Your task to perform on an android device: Open wifi settings Image 0: 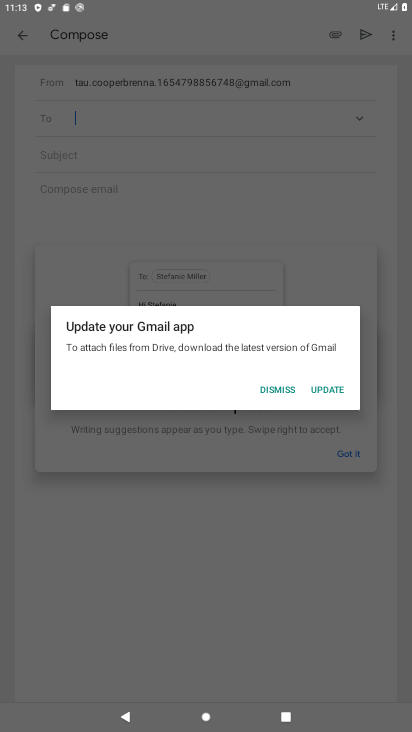
Step 0: press home button
Your task to perform on an android device: Open wifi settings Image 1: 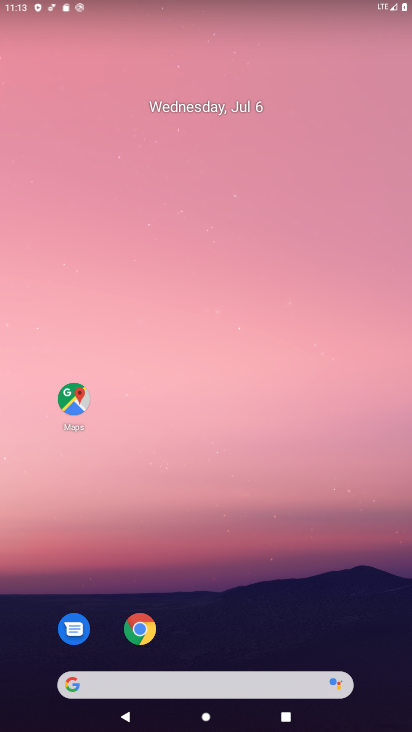
Step 1: drag from (228, 631) to (247, 235)
Your task to perform on an android device: Open wifi settings Image 2: 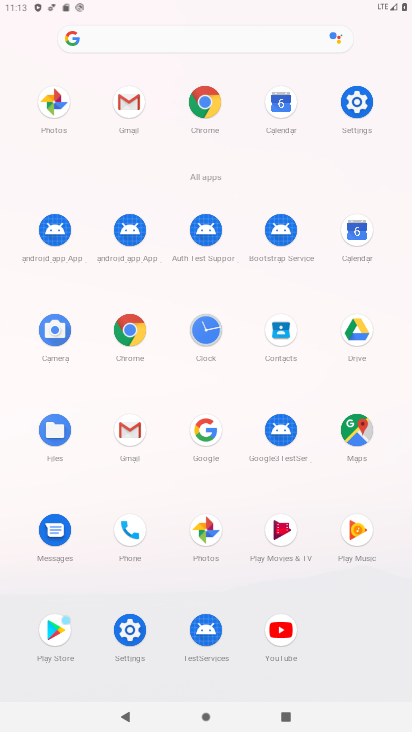
Step 2: click (348, 91)
Your task to perform on an android device: Open wifi settings Image 3: 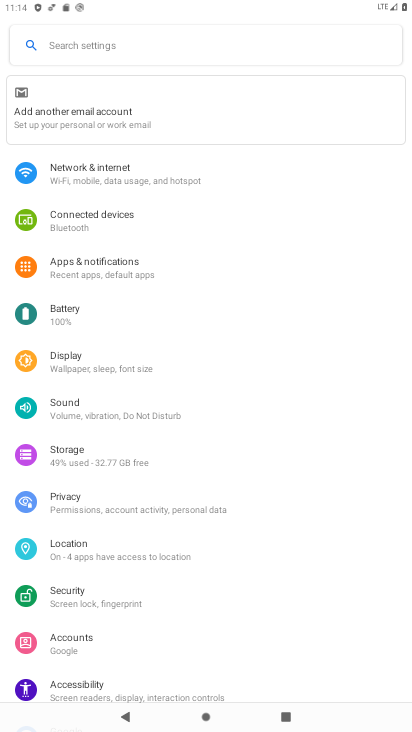
Step 3: click (125, 180)
Your task to perform on an android device: Open wifi settings Image 4: 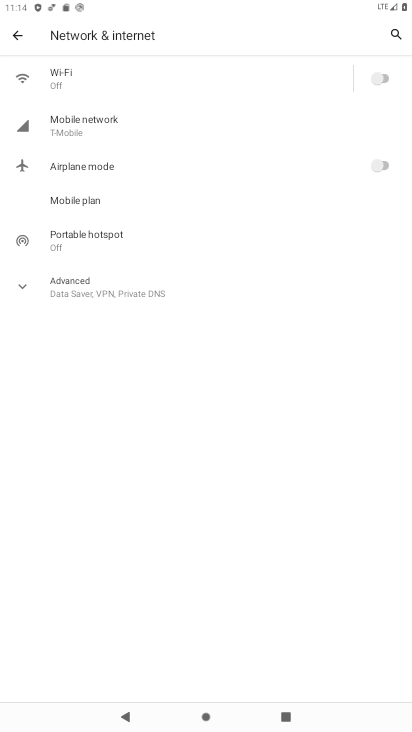
Step 4: click (100, 86)
Your task to perform on an android device: Open wifi settings Image 5: 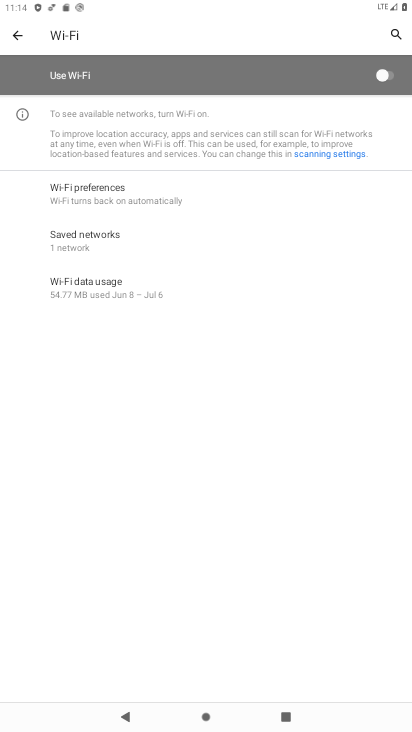
Step 5: task complete